Your task to perform on an android device: Open the calendar and show me this week's events? Image 0: 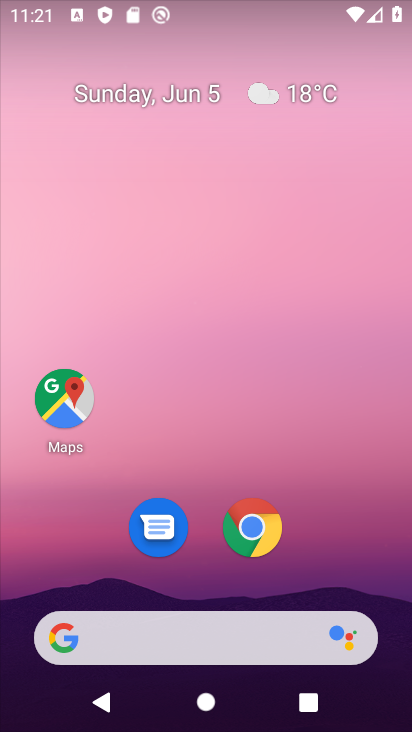
Step 0: drag from (338, 519) to (328, 354)
Your task to perform on an android device: Open the calendar and show me this week's events? Image 1: 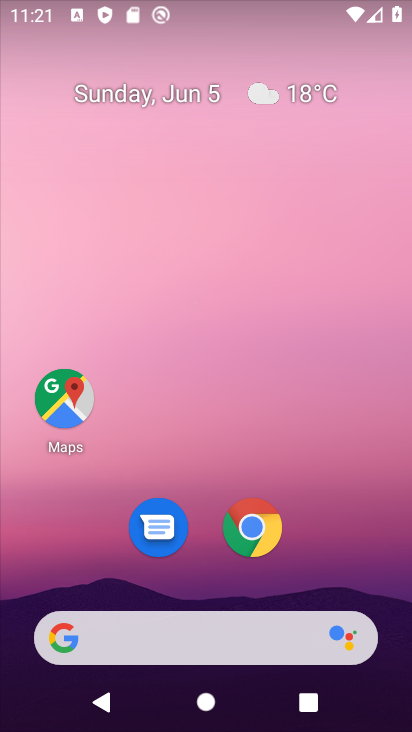
Step 1: click (337, 327)
Your task to perform on an android device: Open the calendar and show me this week's events? Image 2: 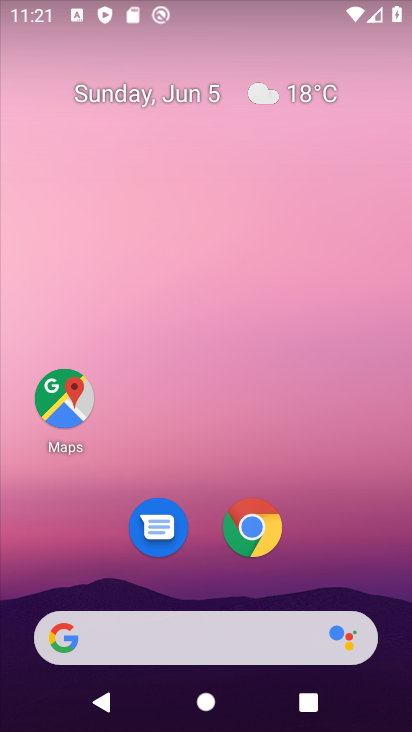
Step 2: drag from (336, 515) to (395, 203)
Your task to perform on an android device: Open the calendar and show me this week's events? Image 3: 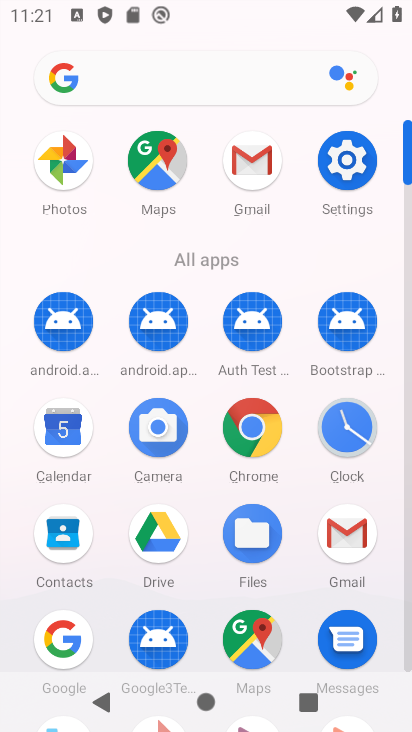
Step 3: click (64, 438)
Your task to perform on an android device: Open the calendar and show me this week's events? Image 4: 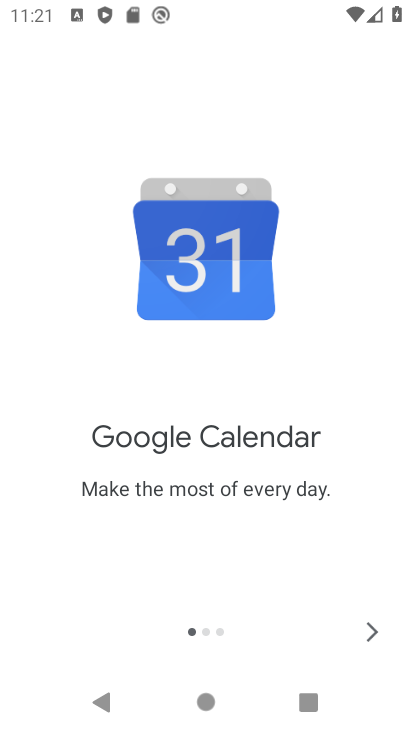
Step 4: click (375, 634)
Your task to perform on an android device: Open the calendar and show me this week's events? Image 5: 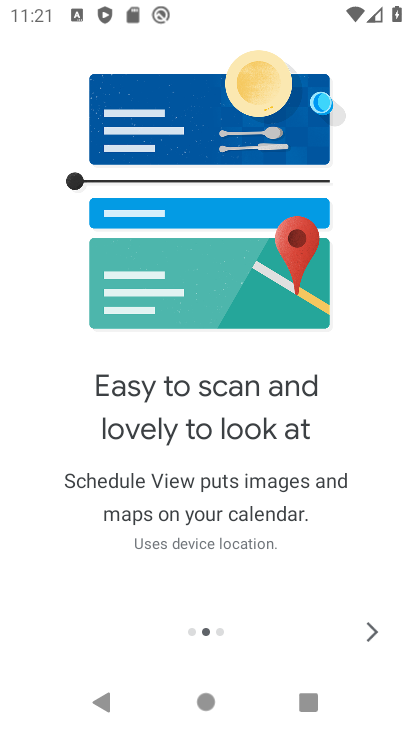
Step 5: click (375, 634)
Your task to perform on an android device: Open the calendar and show me this week's events? Image 6: 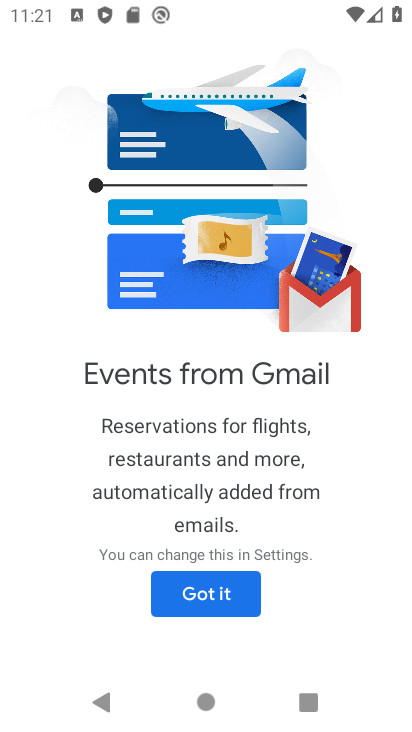
Step 6: click (204, 592)
Your task to perform on an android device: Open the calendar and show me this week's events? Image 7: 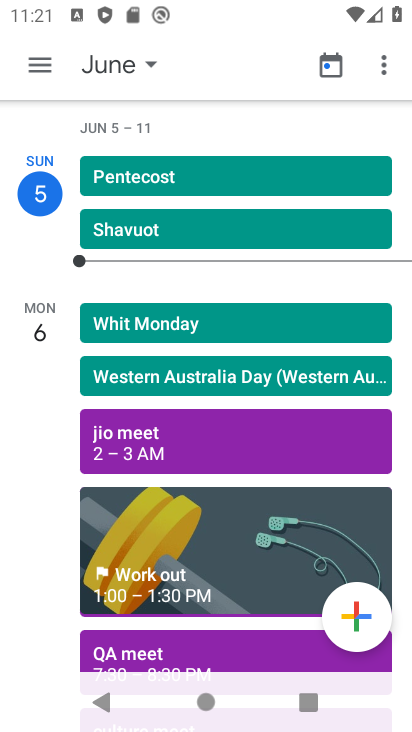
Step 7: task complete